Your task to perform on an android device: toggle javascript in the chrome app Image 0: 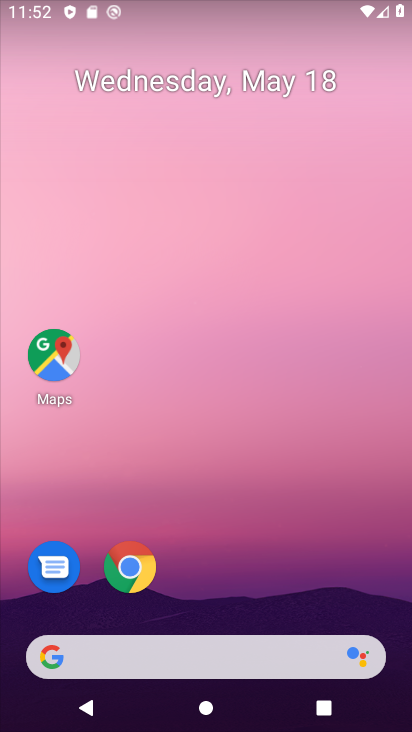
Step 0: drag from (284, 565) to (296, 203)
Your task to perform on an android device: toggle javascript in the chrome app Image 1: 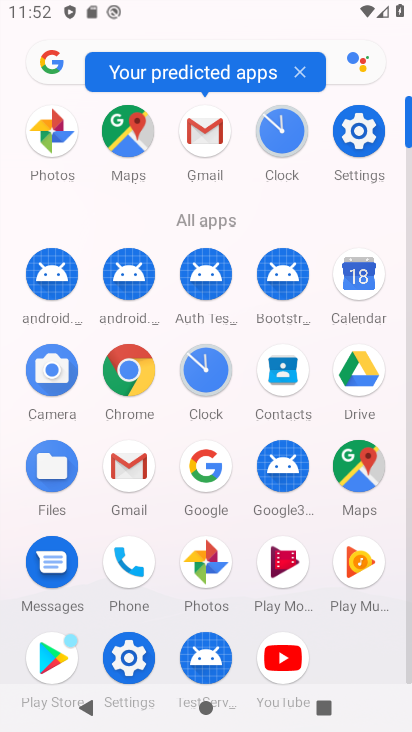
Step 1: click (127, 359)
Your task to perform on an android device: toggle javascript in the chrome app Image 2: 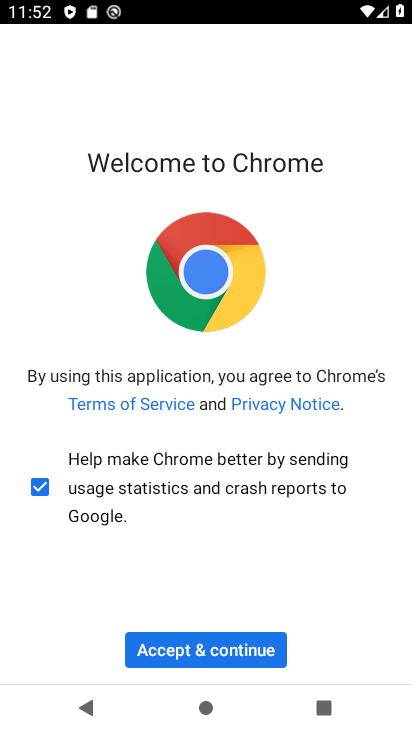
Step 2: click (215, 654)
Your task to perform on an android device: toggle javascript in the chrome app Image 3: 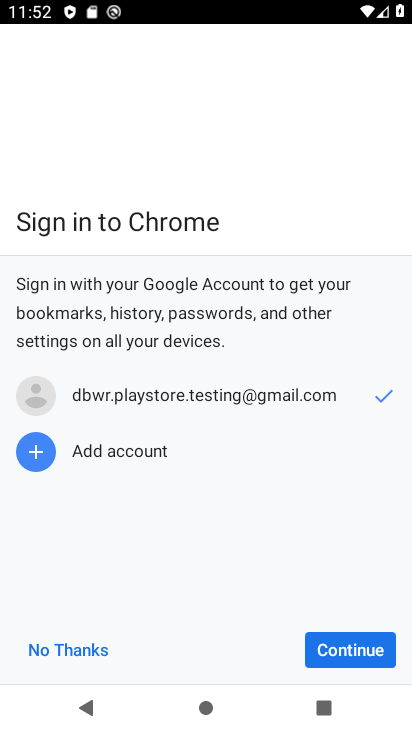
Step 3: click (349, 652)
Your task to perform on an android device: toggle javascript in the chrome app Image 4: 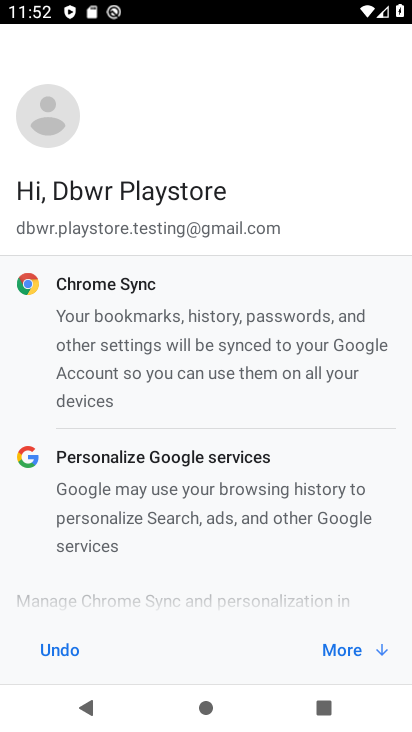
Step 4: click (324, 649)
Your task to perform on an android device: toggle javascript in the chrome app Image 5: 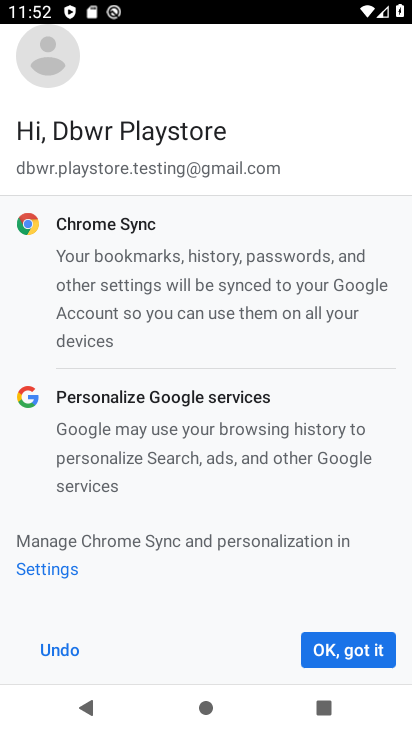
Step 5: click (323, 649)
Your task to perform on an android device: toggle javascript in the chrome app Image 6: 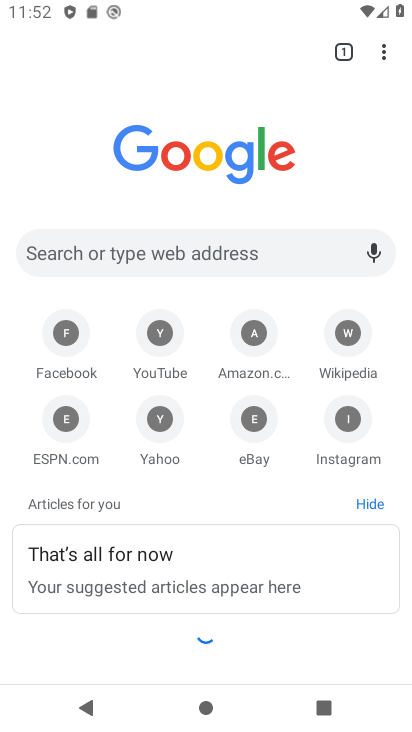
Step 6: click (384, 48)
Your task to perform on an android device: toggle javascript in the chrome app Image 7: 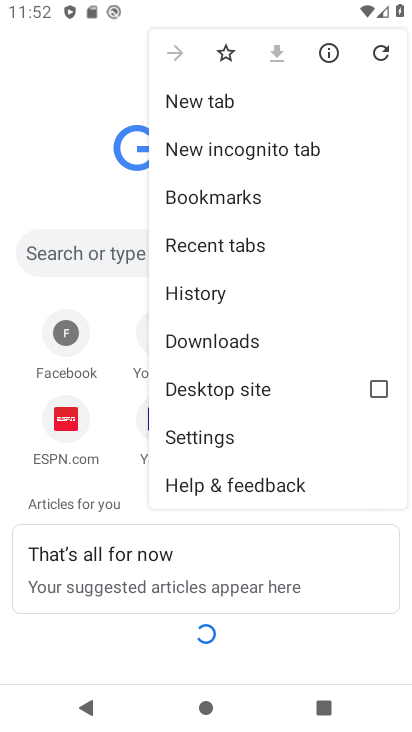
Step 7: click (228, 439)
Your task to perform on an android device: toggle javascript in the chrome app Image 8: 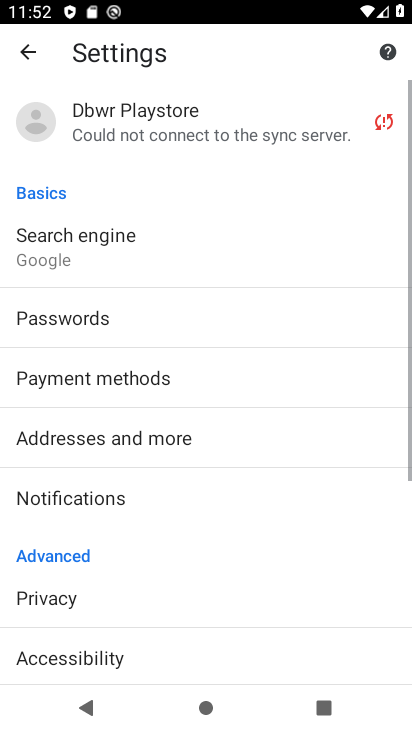
Step 8: click (163, 554)
Your task to perform on an android device: toggle javascript in the chrome app Image 9: 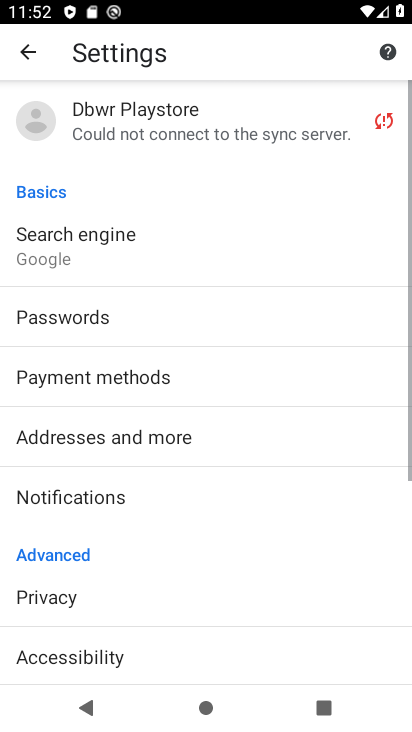
Step 9: drag from (168, 512) to (227, 158)
Your task to perform on an android device: toggle javascript in the chrome app Image 10: 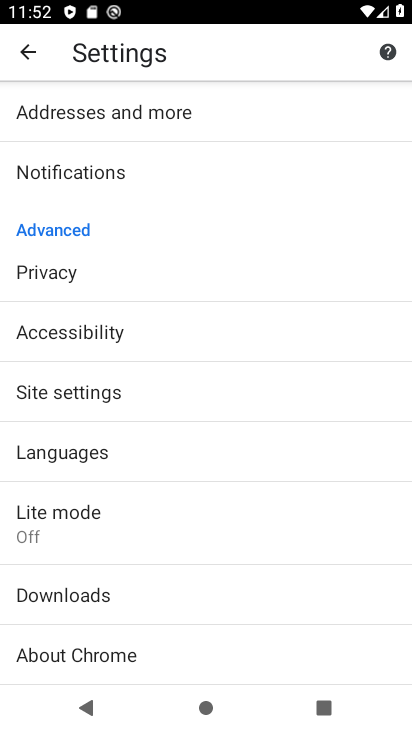
Step 10: click (130, 387)
Your task to perform on an android device: toggle javascript in the chrome app Image 11: 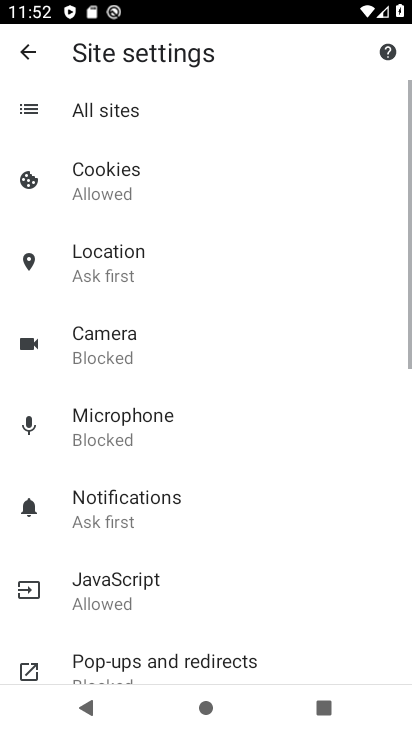
Step 11: drag from (161, 584) to (172, 502)
Your task to perform on an android device: toggle javascript in the chrome app Image 12: 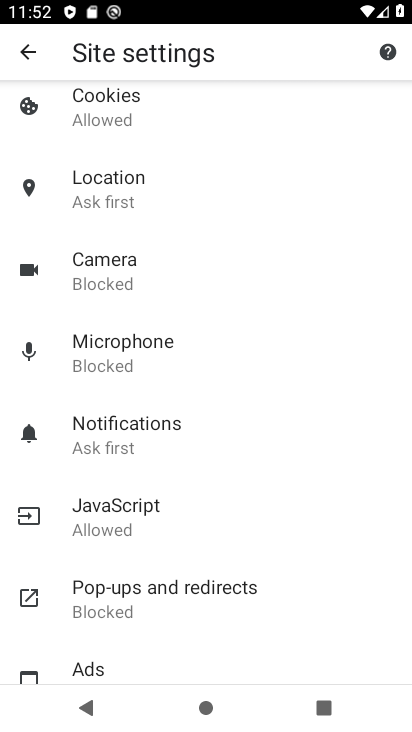
Step 12: click (130, 515)
Your task to perform on an android device: toggle javascript in the chrome app Image 13: 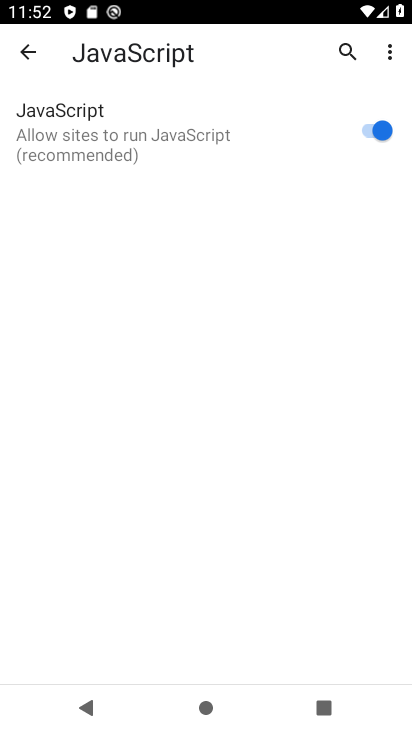
Step 13: click (367, 136)
Your task to perform on an android device: toggle javascript in the chrome app Image 14: 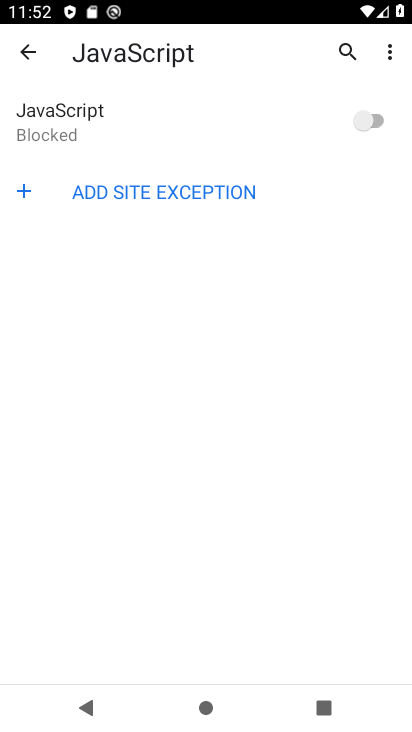
Step 14: task complete